Your task to perform on an android device: Search for "apple airpods pro" on bestbuy, select the first entry, add it to the cart, then select checkout. Image 0: 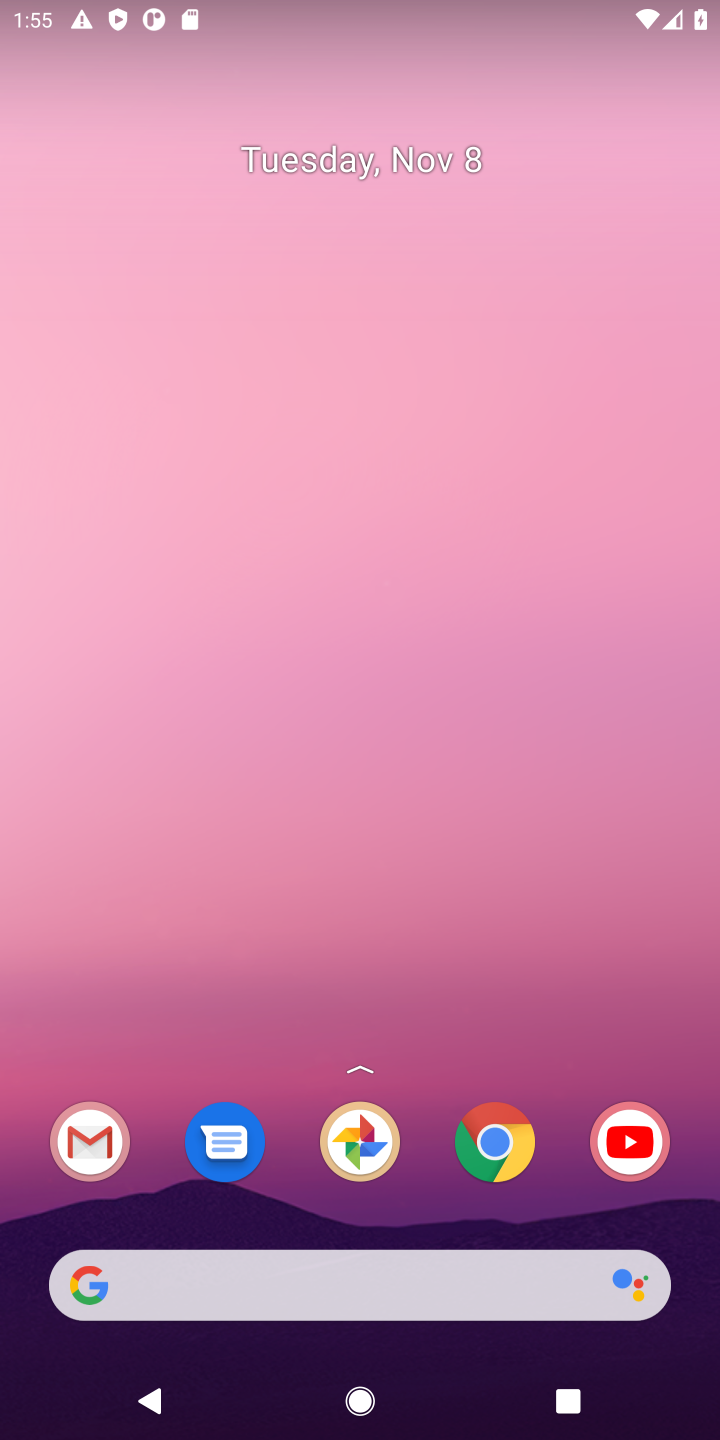
Step 0: click (425, 98)
Your task to perform on an android device: Search for "apple airpods pro" on bestbuy, select the first entry, add it to the cart, then select checkout. Image 1: 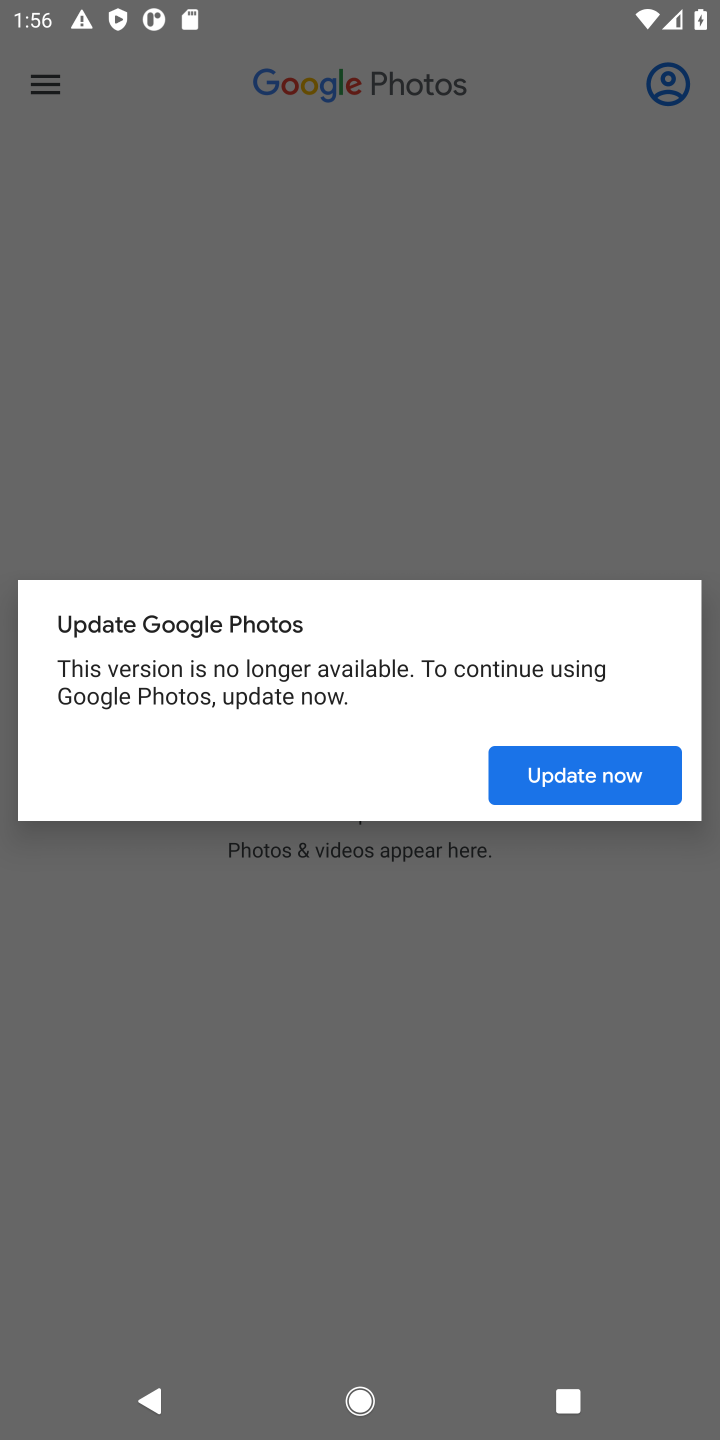
Step 1: task complete